Your task to perform on an android device: check data usage Image 0: 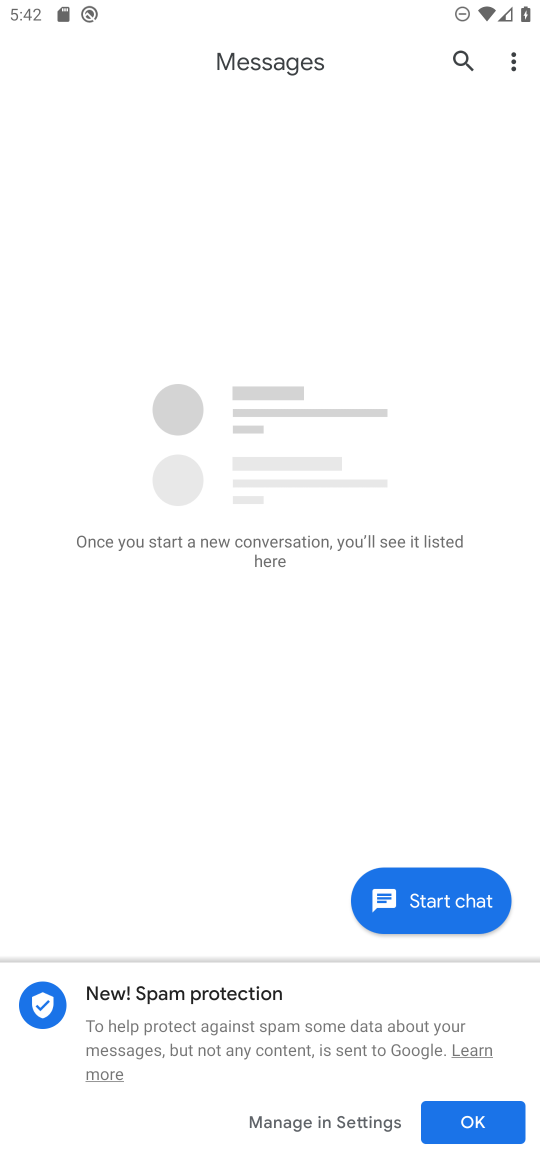
Step 0: press home button
Your task to perform on an android device: check data usage Image 1: 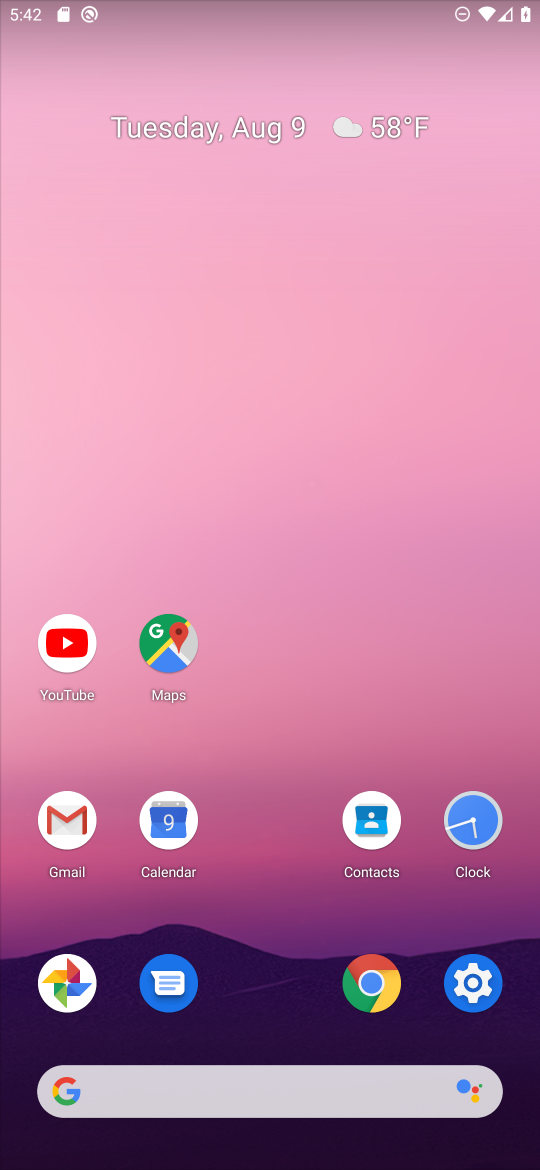
Step 1: click (473, 979)
Your task to perform on an android device: check data usage Image 2: 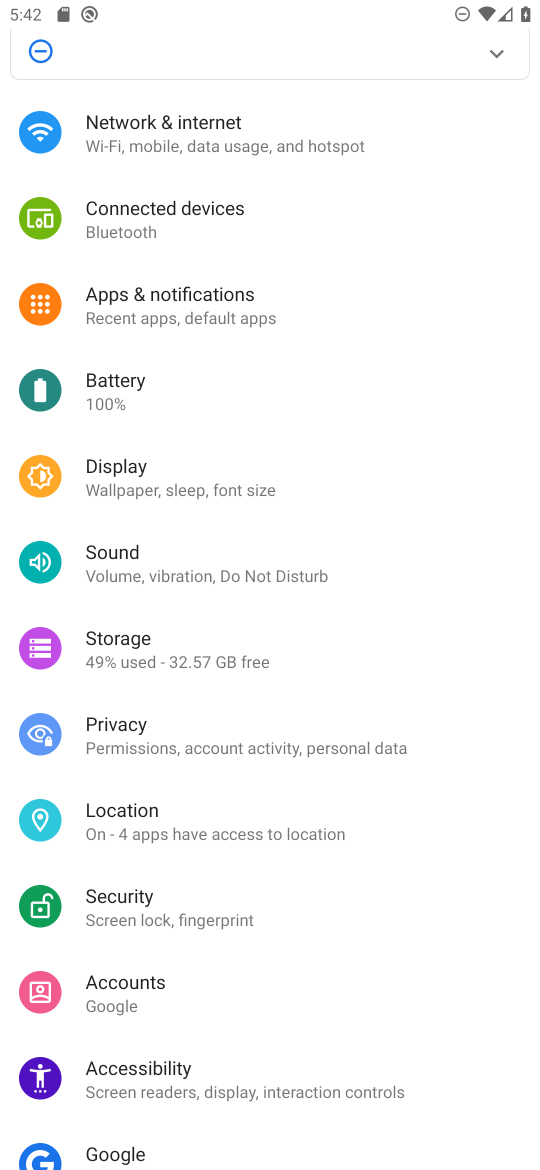
Step 2: click (151, 113)
Your task to perform on an android device: check data usage Image 3: 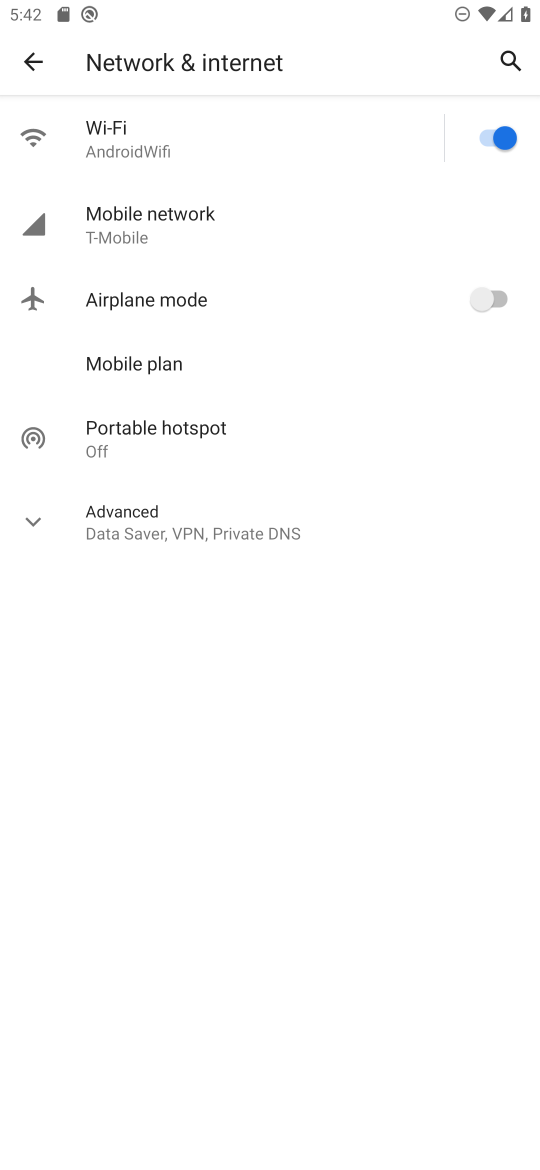
Step 3: click (135, 203)
Your task to perform on an android device: check data usage Image 4: 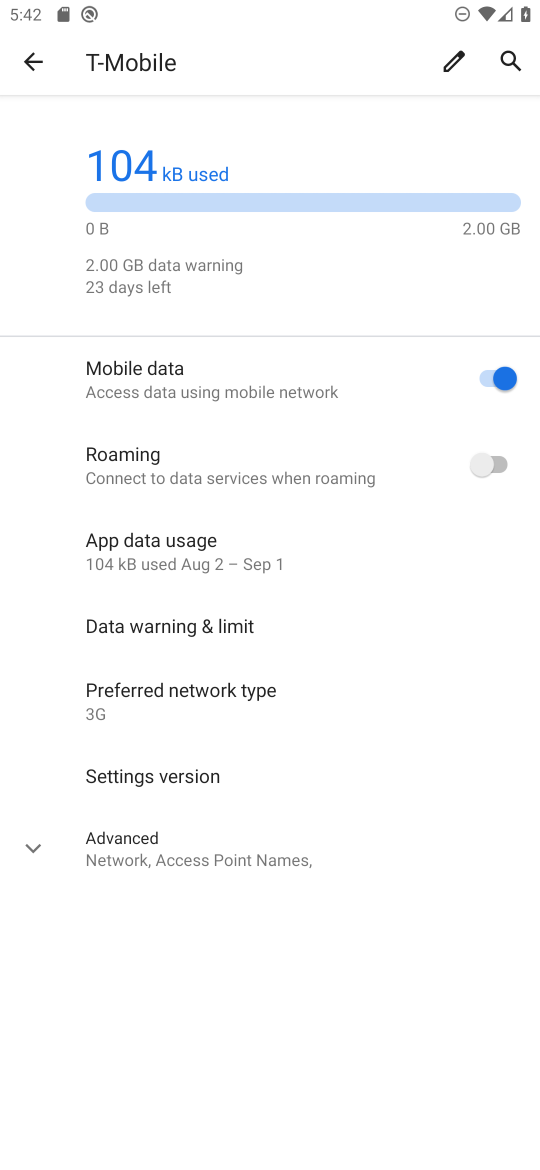
Step 4: task complete